Your task to perform on an android device: Set the phone to "Do not disturb". Image 0: 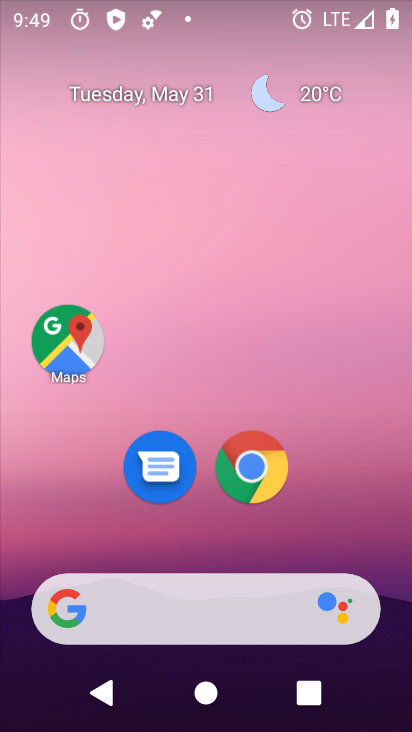
Step 0: drag from (207, 543) to (243, 151)
Your task to perform on an android device: Set the phone to "Do not disturb". Image 1: 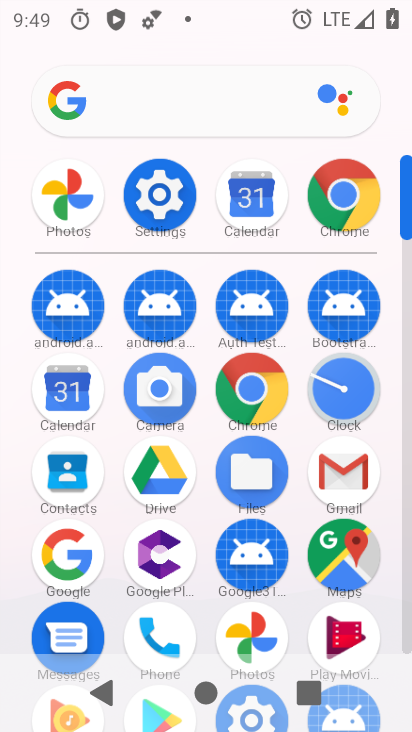
Step 1: click (150, 211)
Your task to perform on an android device: Set the phone to "Do not disturb". Image 2: 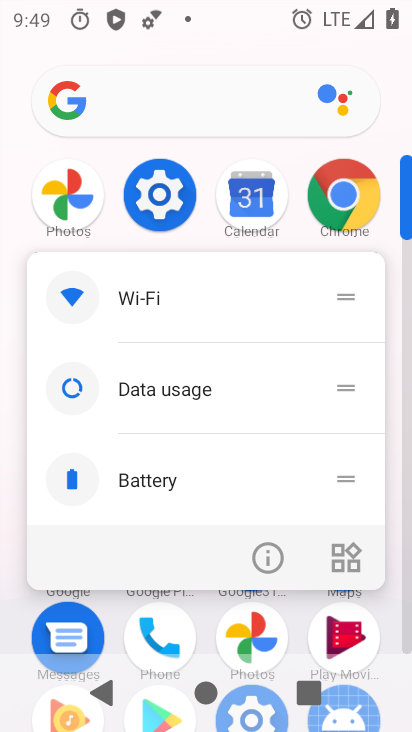
Step 2: click (265, 552)
Your task to perform on an android device: Set the phone to "Do not disturb". Image 3: 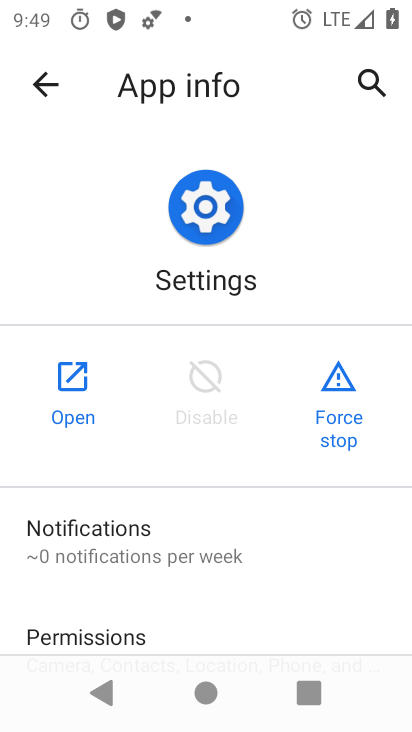
Step 3: click (80, 398)
Your task to perform on an android device: Set the phone to "Do not disturb". Image 4: 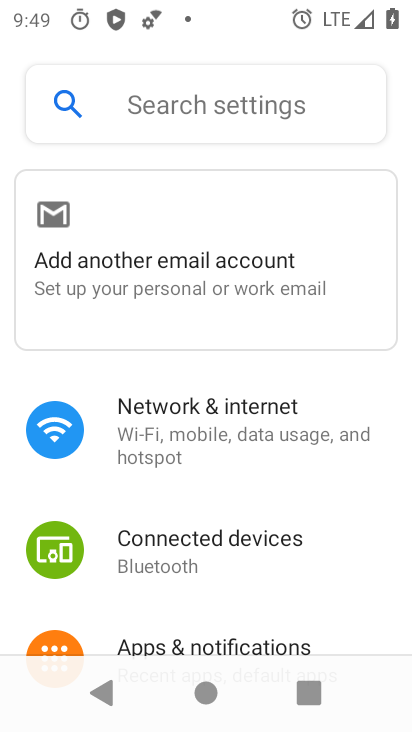
Step 4: drag from (212, 591) to (253, 245)
Your task to perform on an android device: Set the phone to "Do not disturb". Image 5: 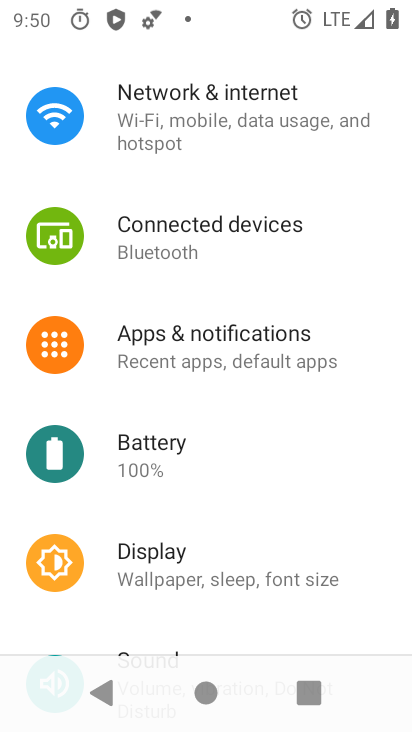
Step 5: click (235, 345)
Your task to perform on an android device: Set the phone to "Do not disturb". Image 6: 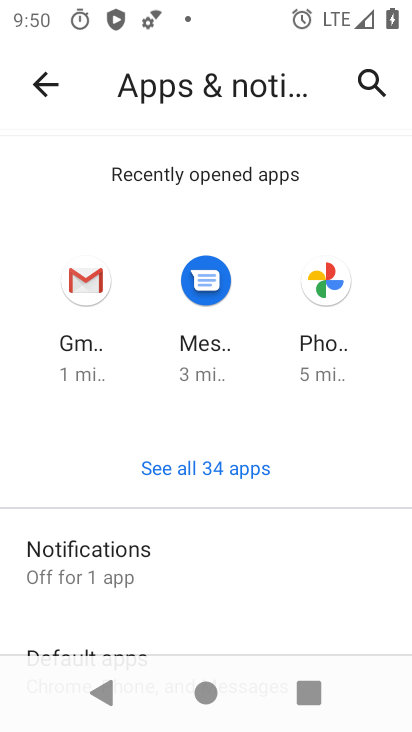
Step 6: drag from (144, 530) to (174, 11)
Your task to perform on an android device: Set the phone to "Do not disturb". Image 7: 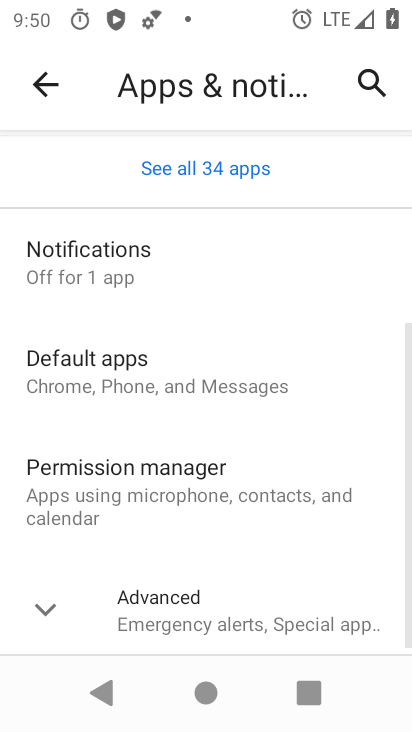
Step 7: click (166, 608)
Your task to perform on an android device: Set the phone to "Do not disturb". Image 8: 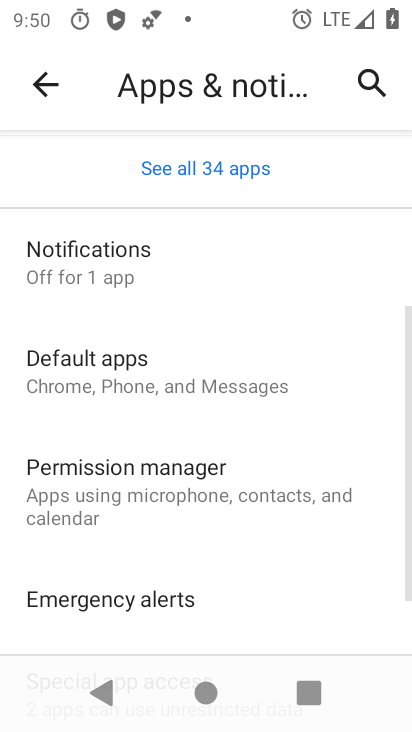
Step 8: click (133, 229)
Your task to perform on an android device: Set the phone to "Do not disturb". Image 9: 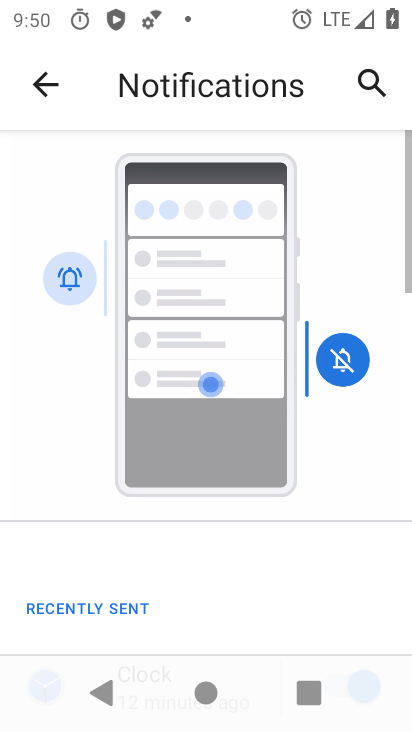
Step 9: drag from (265, 552) to (296, 193)
Your task to perform on an android device: Set the phone to "Do not disturb". Image 10: 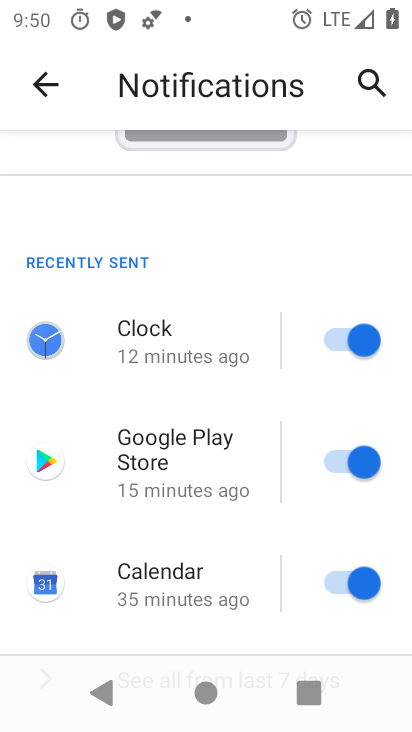
Step 10: drag from (207, 586) to (306, 154)
Your task to perform on an android device: Set the phone to "Do not disturb". Image 11: 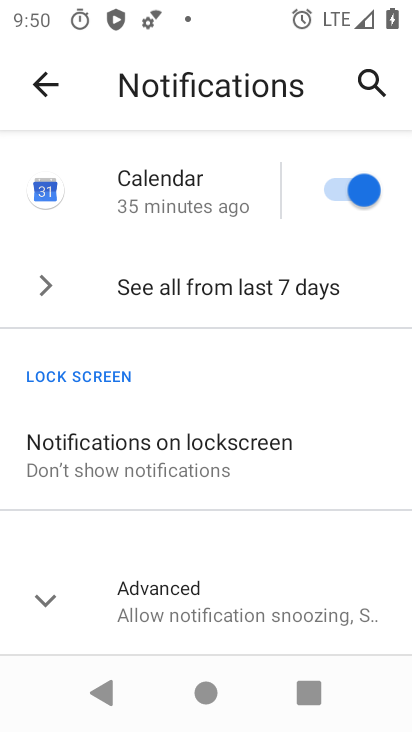
Step 11: drag from (176, 621) to (260, 270)
Your task to perform on an android device: Set the phone to "Do not disturb". Image 12: 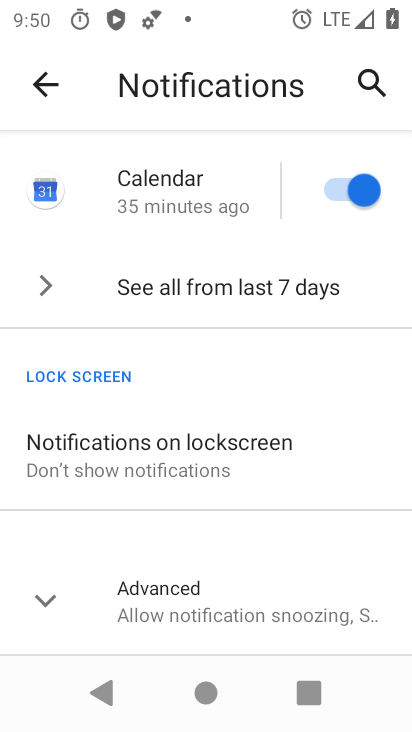
Step 12: click (184, 597)
Your task to perform on an android device: Set the phone to "Do not disturb". Image 13: 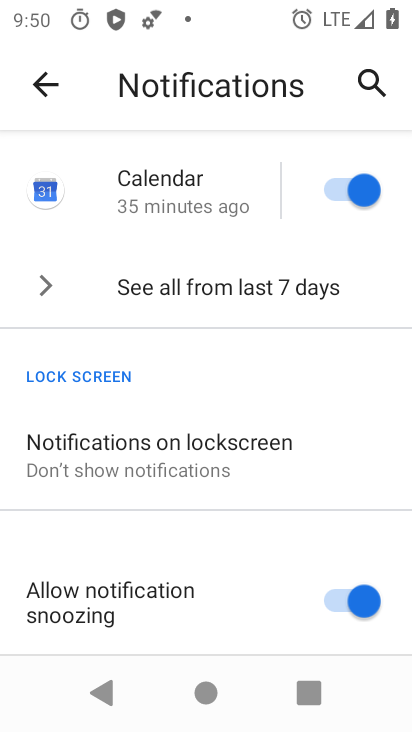
Step 13: drag from (218, 589) to (260, 281)
Your task to perform on an android device: Set the phone to "Do not disturb". Image 14: 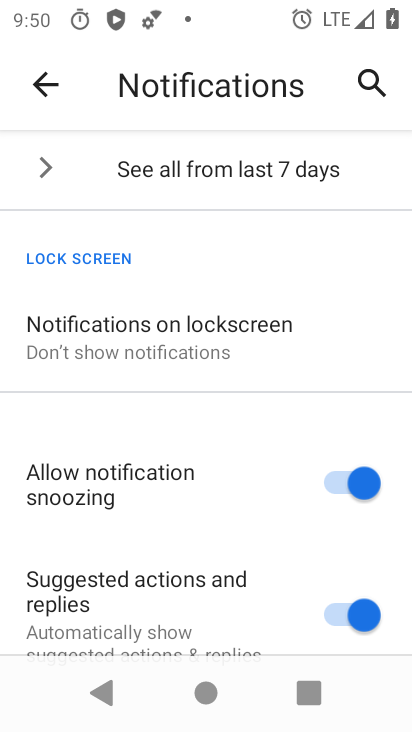
Step 14: drag from (209, 592) to (250, 363)
Your task to perform on an android device: Set the phone to "Do not disturb". Image 15: 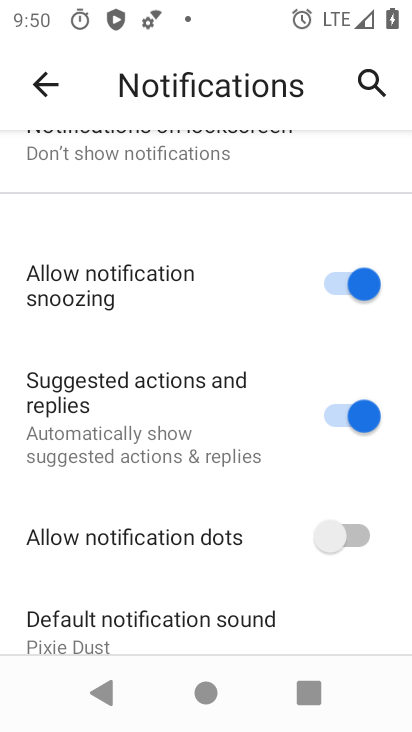
Step 15: drag from (211, 580) to (292, 80)
Your task to perform on an android device: Set the phone to "Do not disturb". Image 16: 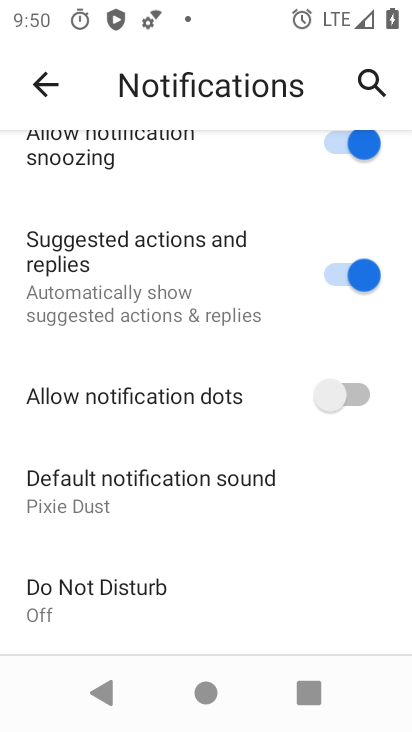
Step 16: click (129, 578)
Your task to perform on an android device: Set the phone to "Do not disturb". Image 17: 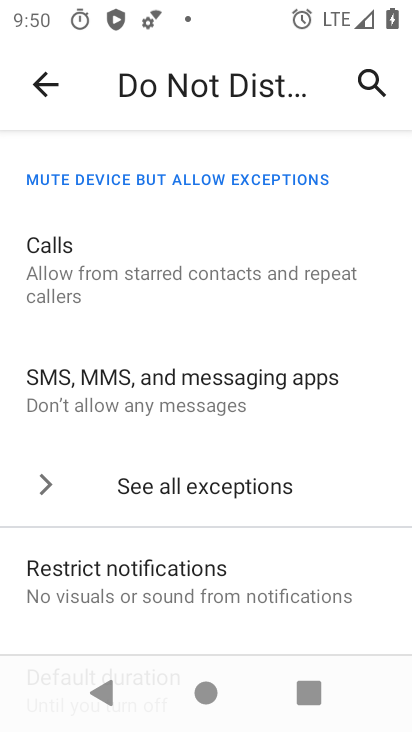
Step 17: drag from (206, 577) to (259, 305)
Your task to perform on an android device: Set the phone to "Do not disturb". Image 18: 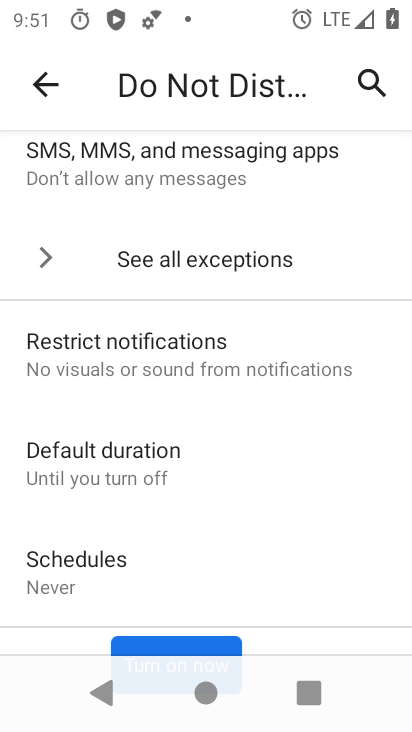
Step 18: drag from (225, 566) to (248, 231)
Your task to perform on an android device: Set the phone to "Do not disturb". Image 19: 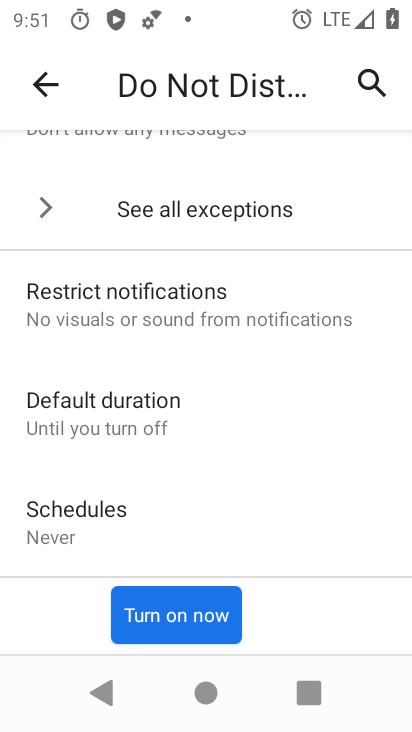
Step 19: drag from (170, 518) to (201, 337)
Your task to perform on an android device: Set the phone to "Do not disturb". Image 20: 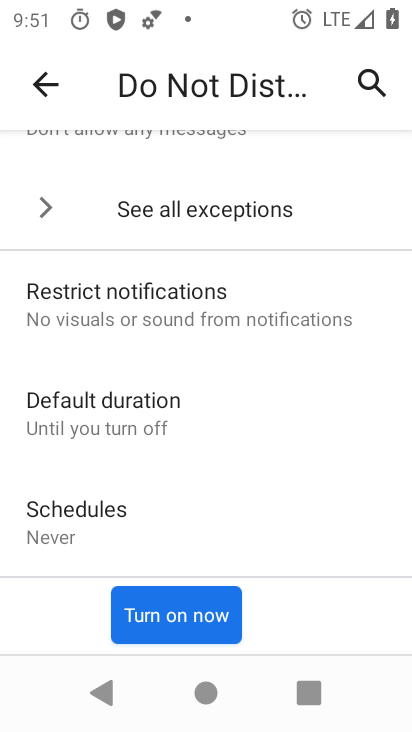
Step 20: drag from (227, 546) to (197, 262)
Your task to perform on an android device: Set the phone to "Do not disturb". Image 21: 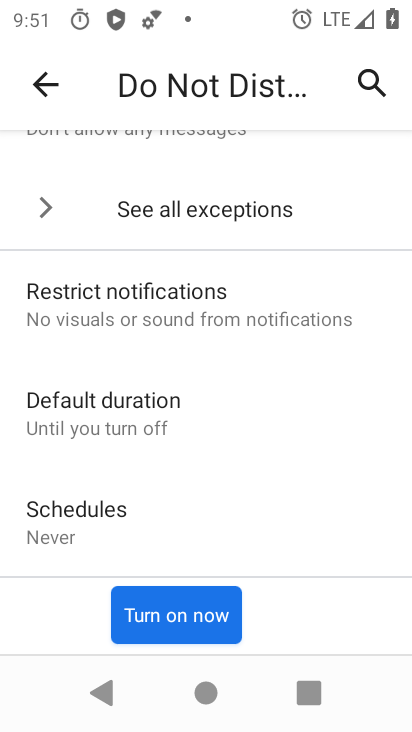
Step 21: drag from (271, 518) to (264, 278)
Your task to perform on an android device: Set the phone to "Do not disturb". Image 22: 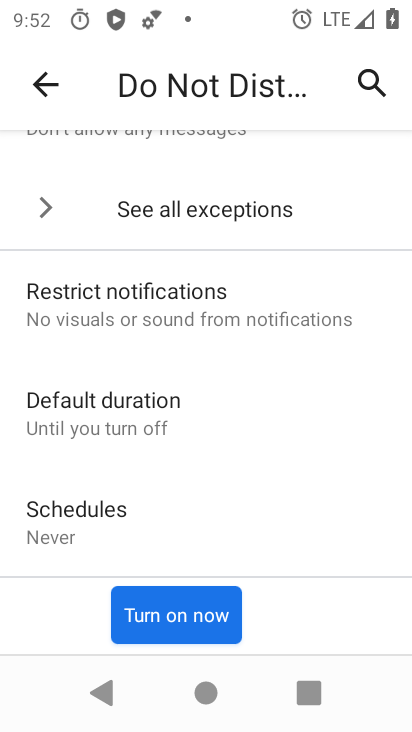
Step 22: drag from (218, 319) to (271, 708)
Your task to perform on an android device: Set the phone to "Do not disturb". Image 23: 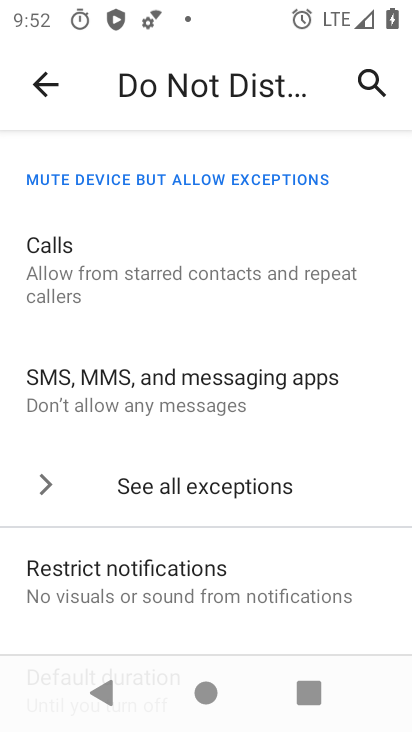
Step 23: drag from (220, 519) to (308, 24)
Your task to perform on an android device: Set the phone to "Do not disturb". Image 24: 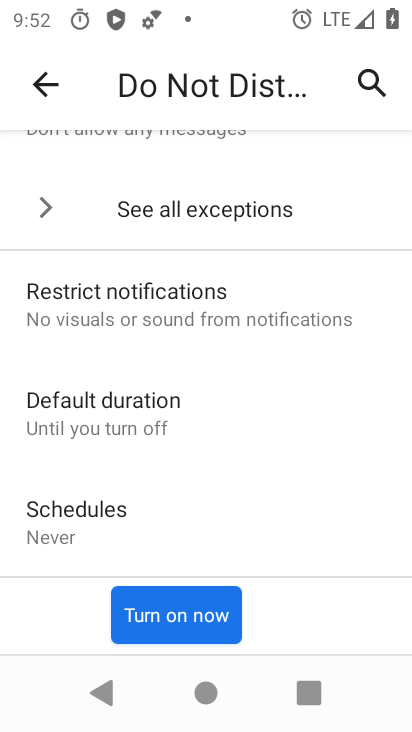
Step 24: click (159, 589)
Your task to perform on an android device: Set the phone to "Do not disturb". Image 25: 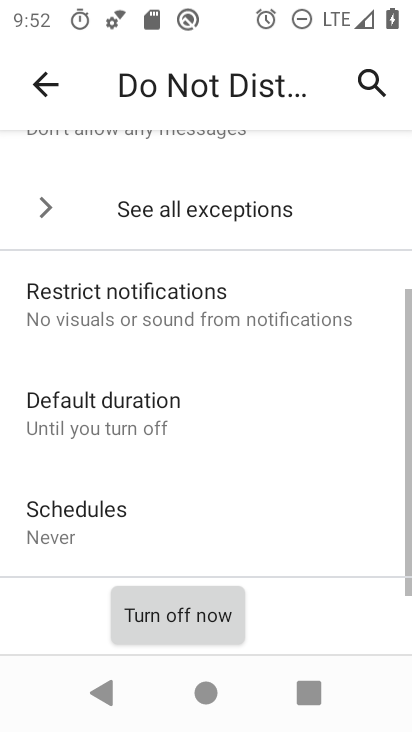
Step 25: task complete